Your task to perform on an android device: Open eBay Image 0: 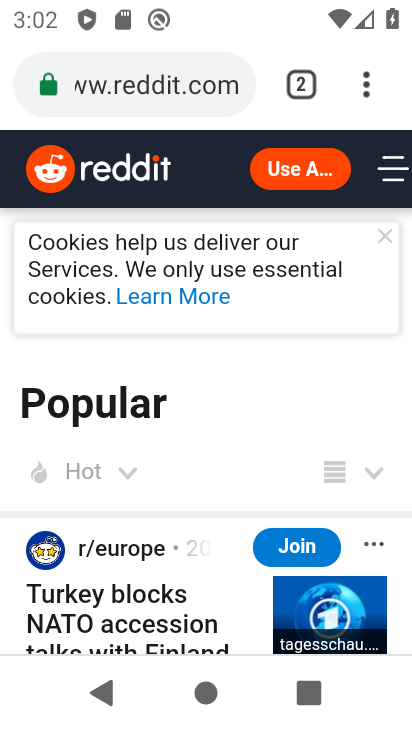
Step 0: click (221, 107)
Your task to perform on an android device: Open eBay Image 1: 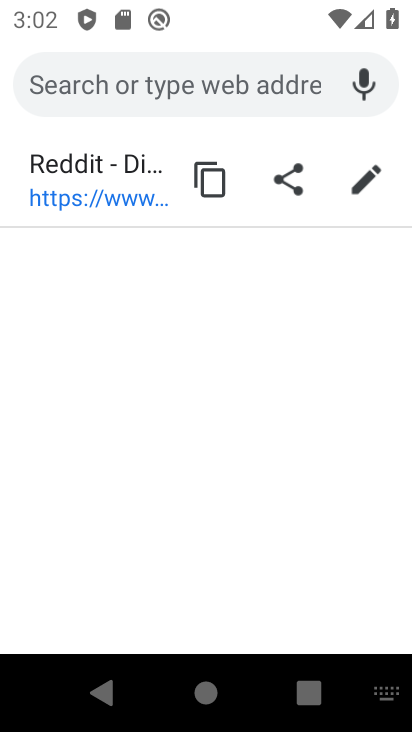
Step 1: type "ebay"
Your task to perform on an android device: Open eBay Image 2: 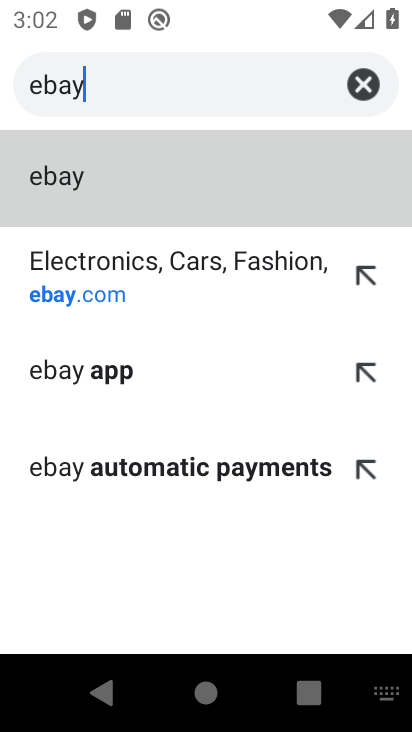
Step 2: click (172, 279)
Your task to perform on an android device: Open eBay Image 3: 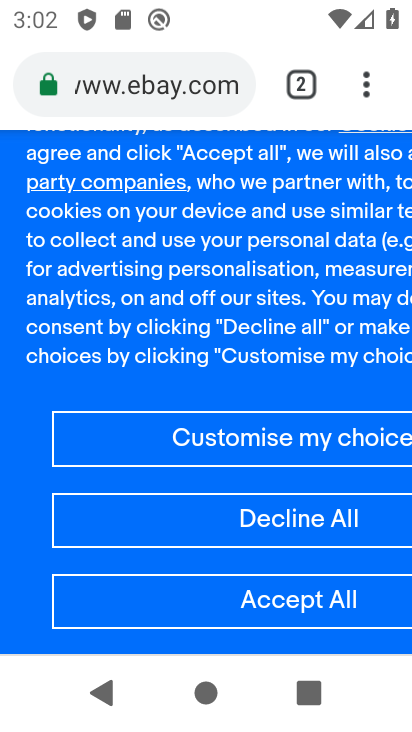
Step 3: task complete